Your task to perform on an android device: toggle javascript in the chrome app Image 0: 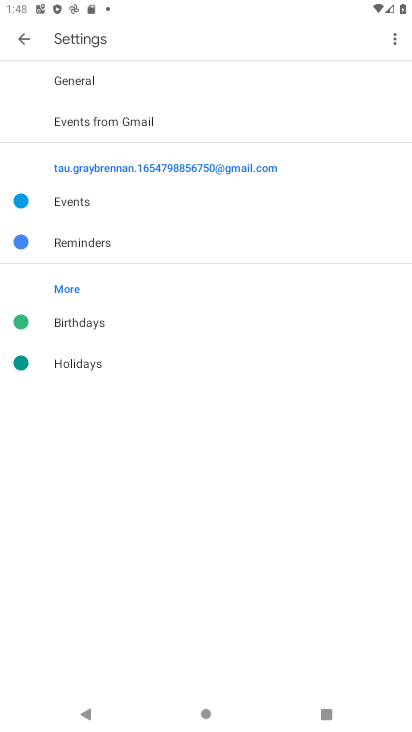
Step 0: press home button
Your task to perform on an android device: toggle javascript in the chrome app Image 1: 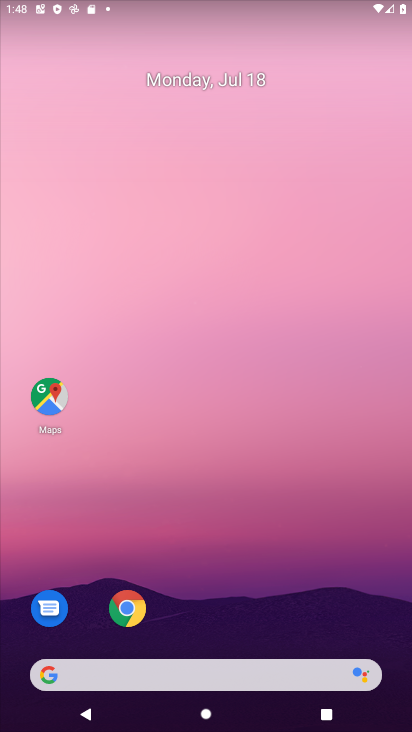
Step 1: click (60, 70)
Your task to perform on an android device: toggle javascript in the chrome app Image 2: 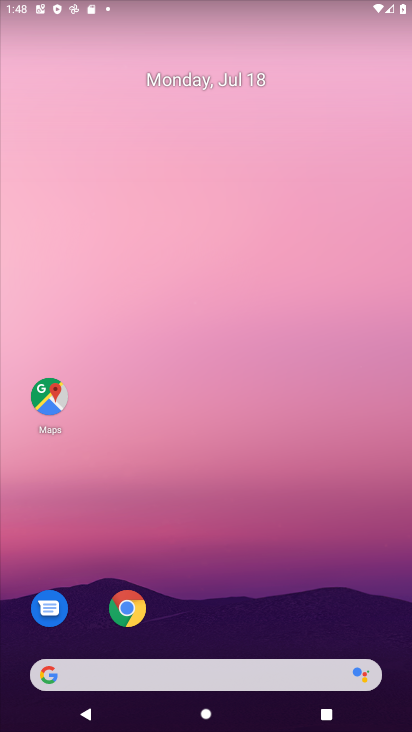
Step 2: drag from (290, 617) to (279, 132)
Your task to perform on an android device: toggle javascript in the chrome app Image 3: 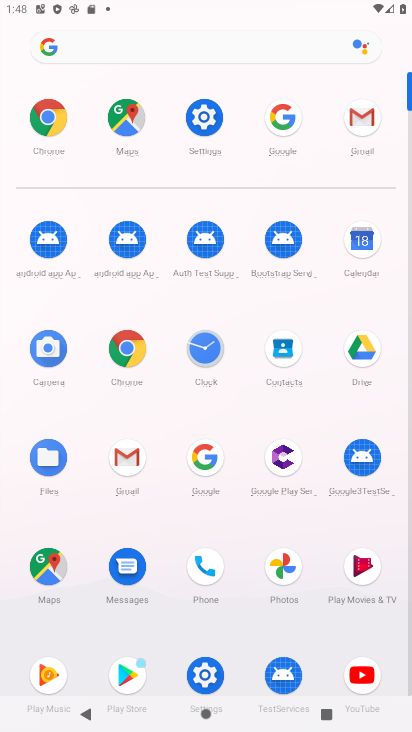
Step 3: click (59, 115)
Your task to perform on an android device: toggle javascript in the chrome app Image 4: 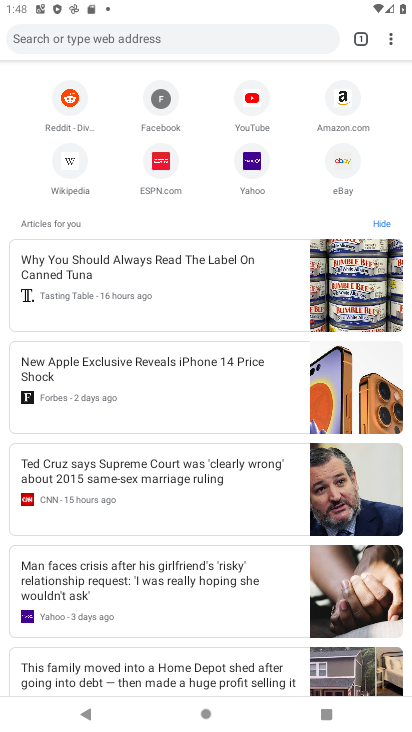
Step 4: click (395, 37)
Your task to perform on an android device: toggle javascript in the chrome app Image 5: 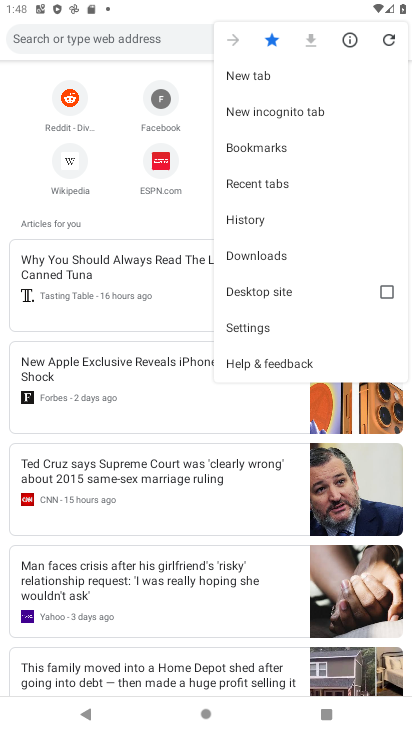
Step 5: click (255, 325)
Your task to perform on an android device: toggle javascript in the chrome app Image 6: 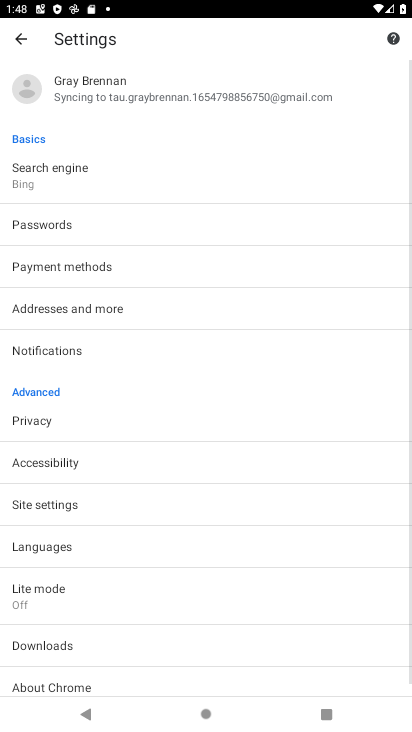
Step 6: click (72, 505)
Your task to perform on an android device: toggle javascript in the chrome app Image 7: 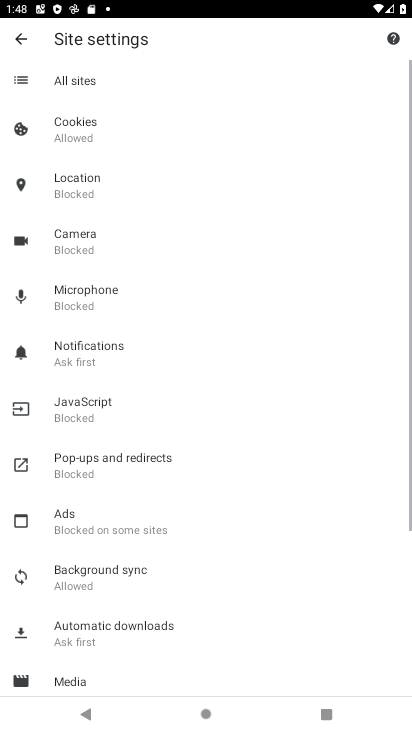
Step 7: click (119, 383)
Your task to perform on an android device: toggle javascript in the chrome app Image 8: 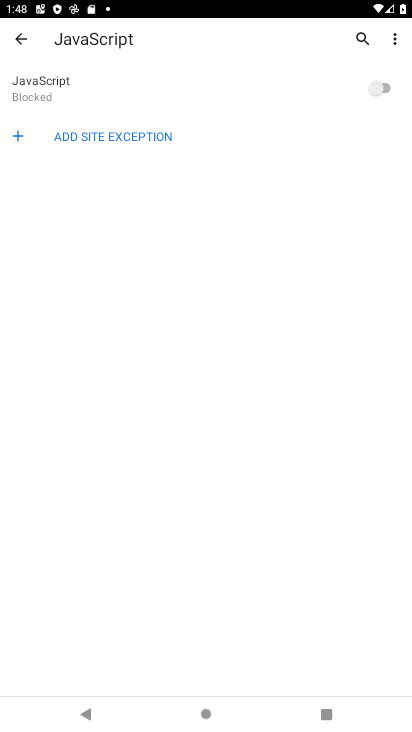
Step 8: click (381, 83)
Your task to perform on an android device: toggle javascript in the chrome app Image 9: 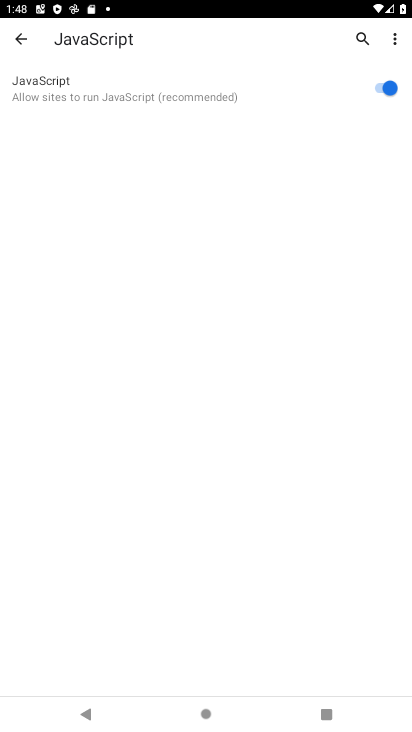
Step 9: task complete